Your task to perform on an android device: turn off location Image 0: 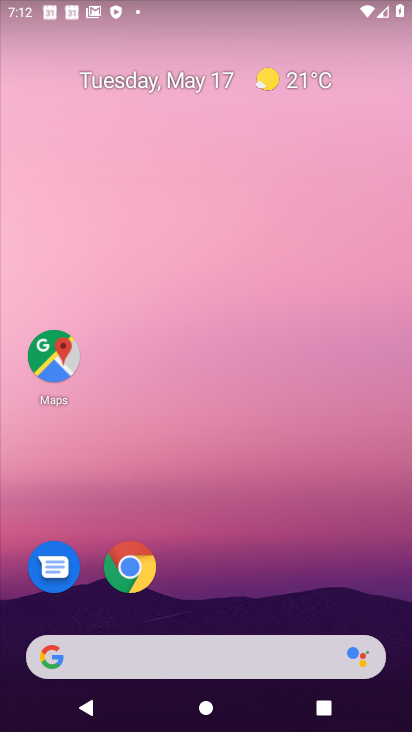
Step 0: drag from (225, 509) to (117, 39)
Your task to perform on an android device: turn off location Image 1: 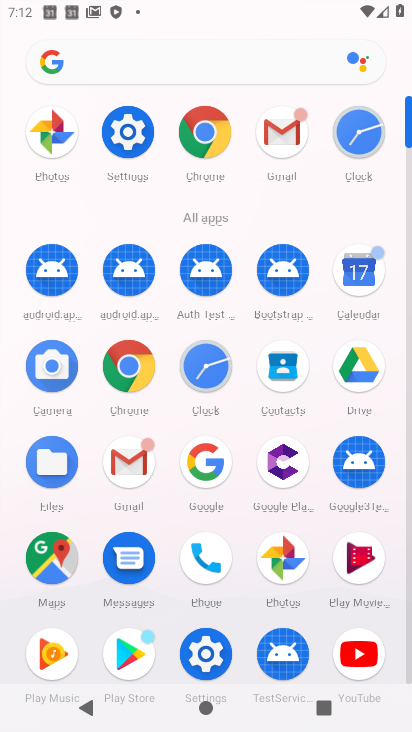
Step 1: click (122, 125)
Your task to perform on an android device: turn off location Image 2: 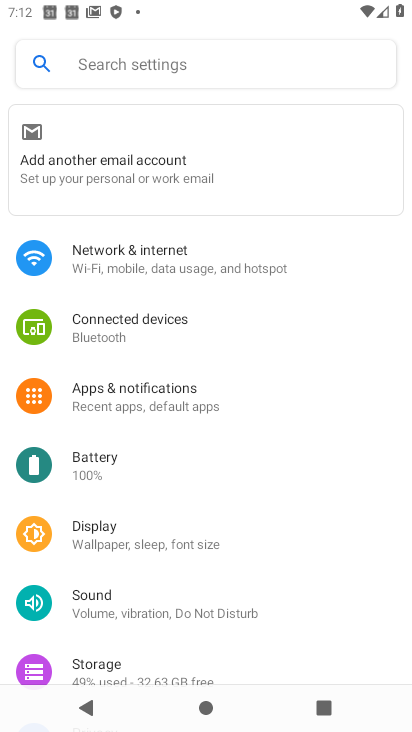
Step 2: drag from (176, 511) to (142, 256)
Your task to perform on an android device: turn off location Image 3: 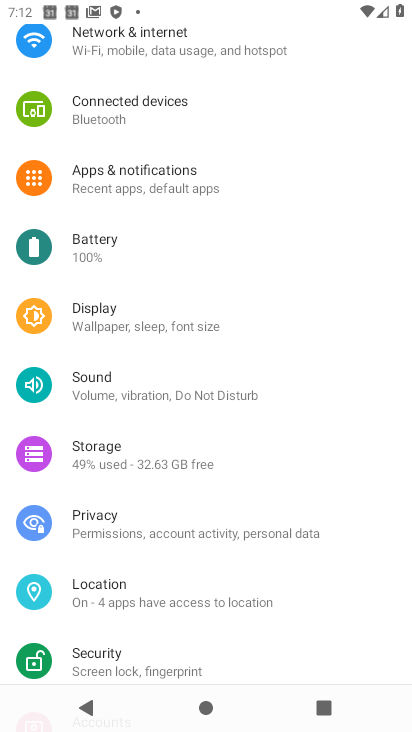
Step 3: click (101, 580)
Your task to perform on an android device: turn off location Image 4: 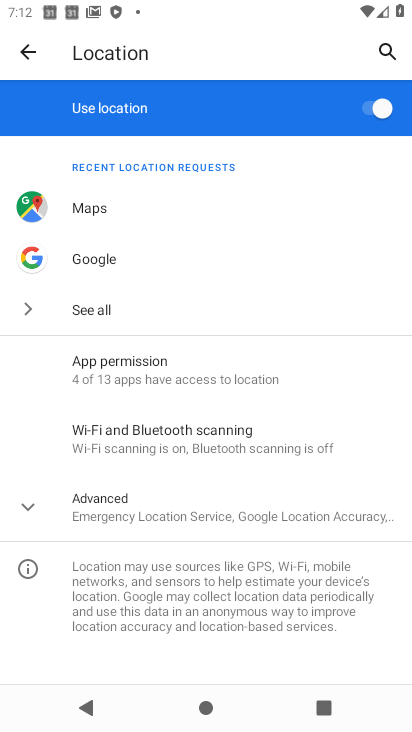
Step 4: click (382, 100)
Your task to perform on an android device: turn off location Image 5: 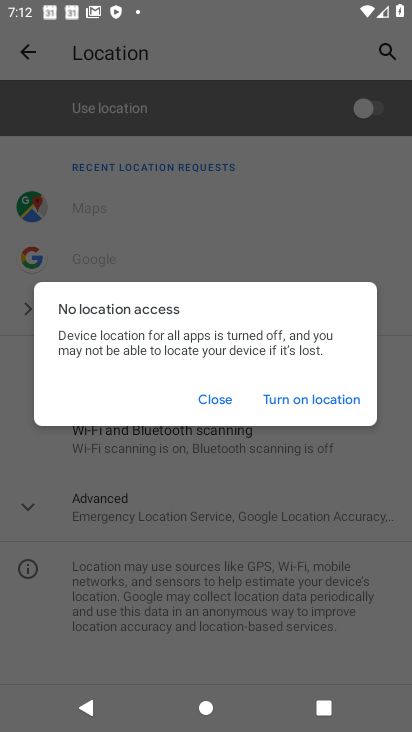
Step 5: task complete